Your task to perform on an android device: turn on the 12-hour format for clock Image 0: 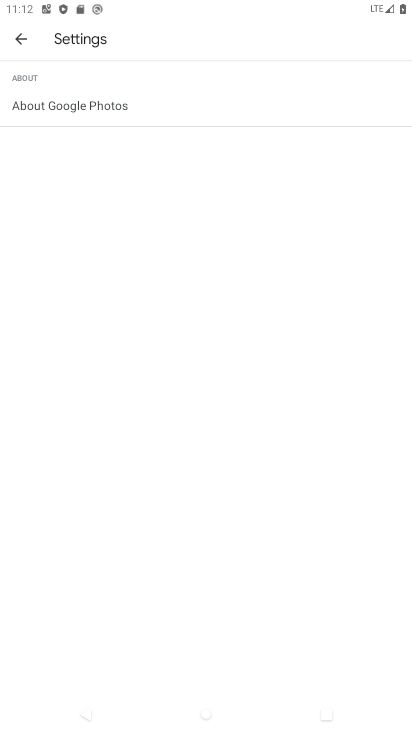
Step 0: click (115, 659)
Your task to perform on an android device: turn on the 12-hour format for clock Image 1: 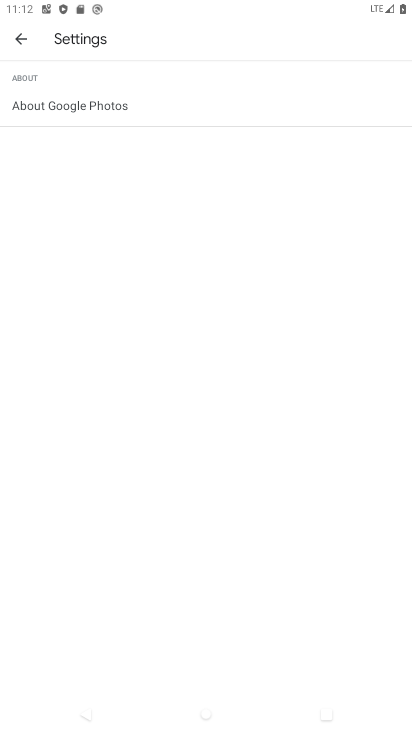
Step 1: press home button
Your task to perform on an android device: turn on the 12-hour format for clock Image 2: 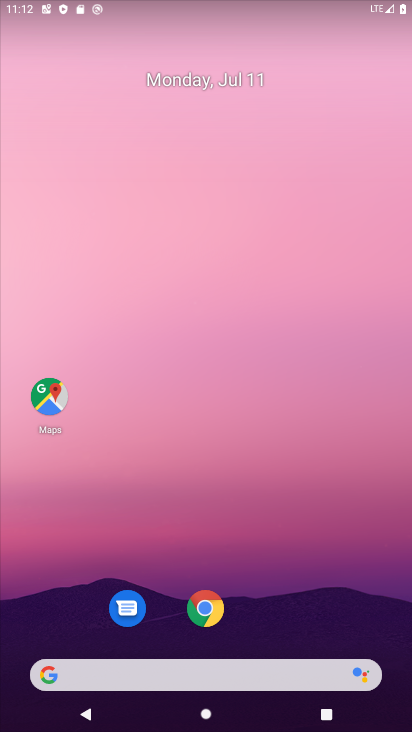
Step 2: click (33, 635)
Your task to perform on an android device: turn on the 12-hour format for clock Image 3: 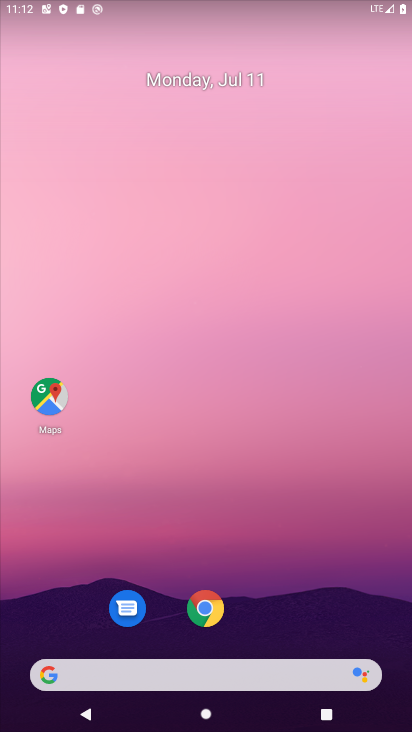
Step 3: drag from (9, 713) to (133, 137)
Your task to perform on an android device: turn on the 12-hour format for clock Image 4: 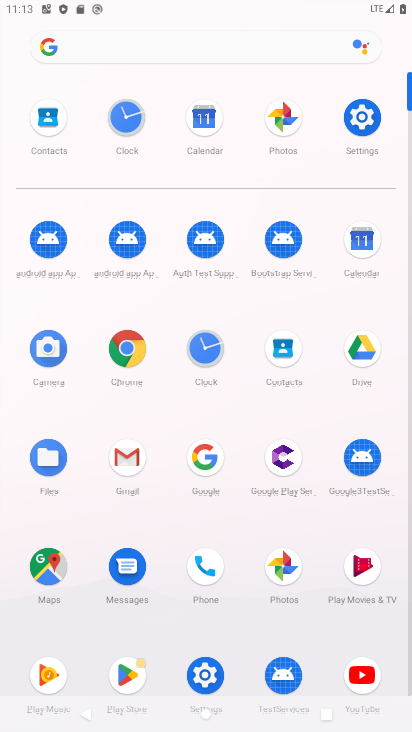
Step 4: click (204, 677)
Your task to perform on an android device: turn on the 12-hour format for clock Image 5: 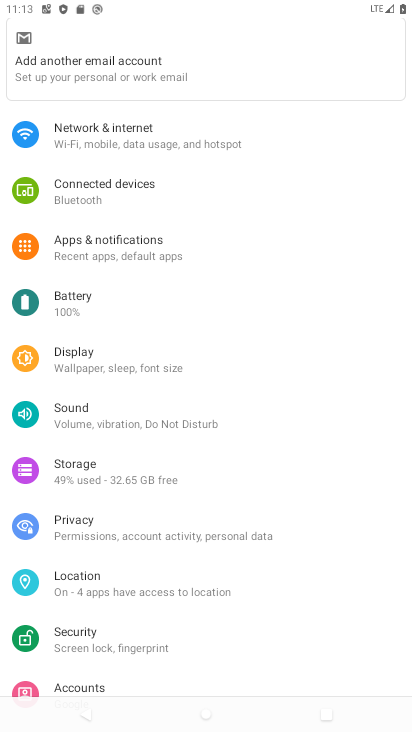
Step 5: task complete